Your task to perform on an android device: Go to battery settings Image 0: 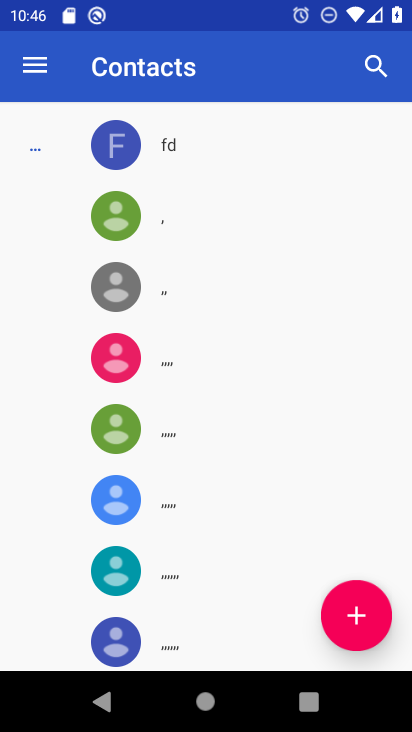
Step 0: press home button
Your task to perform on an android device: Go to battery settings Image 1: 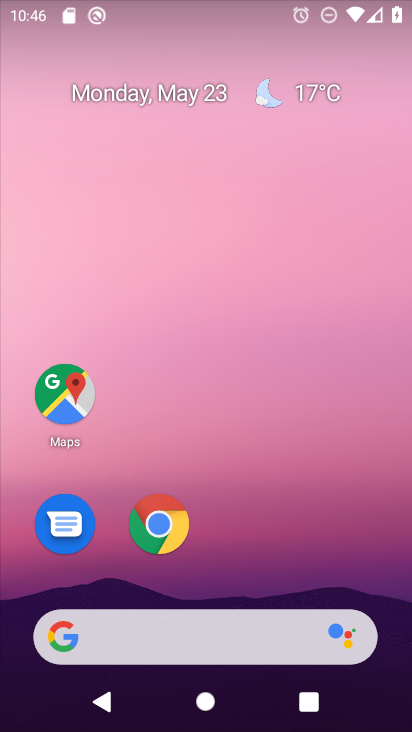
Step 1: drag from (235, 575) to (247, 101)
Your task to perform on an android device: Go to battery settings Image 2: 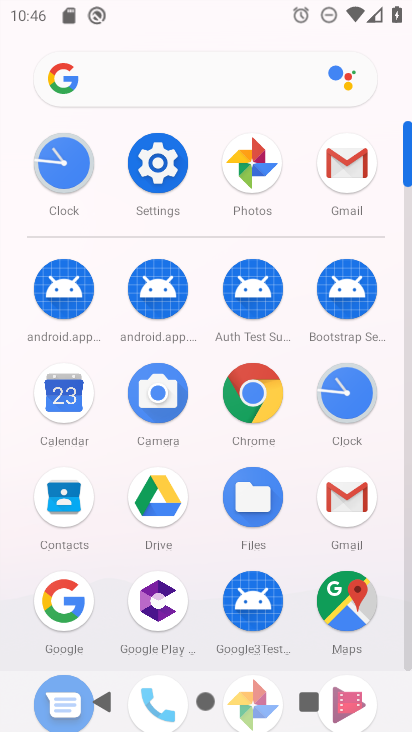
Step 2: click (149, 173)
Your task to perform on an android device: Go to battery settings Image 3: 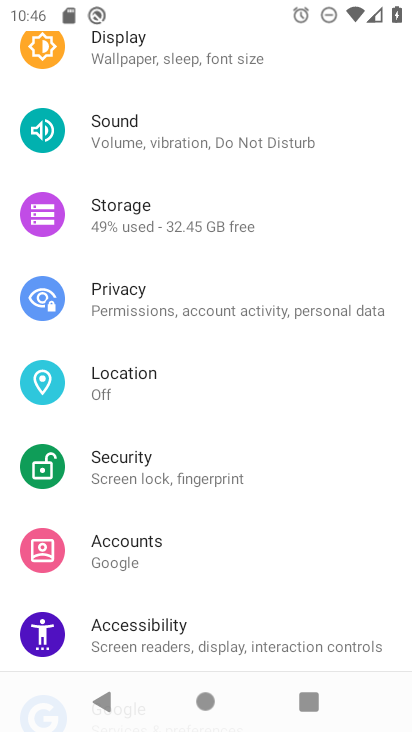
Step 3: drag from (214, 185) to (224, 510)
Your task to perform on an android device: Go to battery settings Image 4: 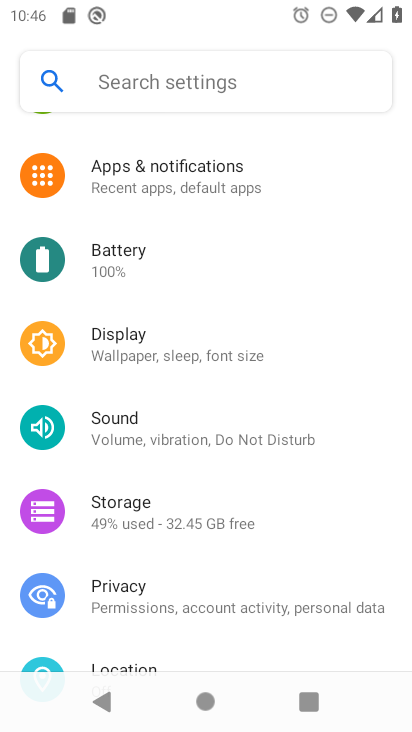
Step 4: click (151, 266)
Your task to perform on an android device: Go to battery settings Image 5: 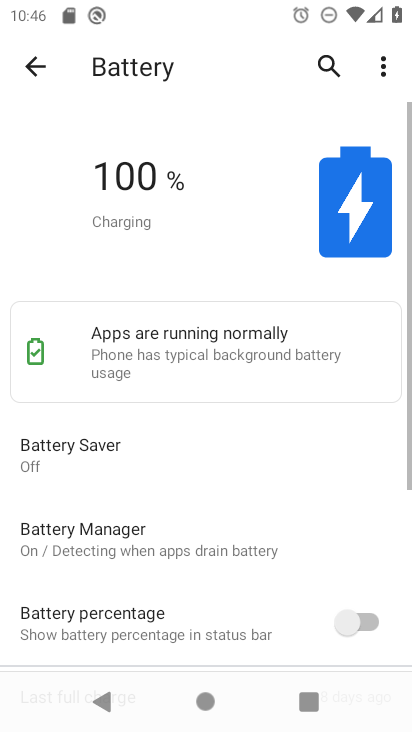
Step 5: task complete